Your task to perform on an android device: change timer sound Image 0: 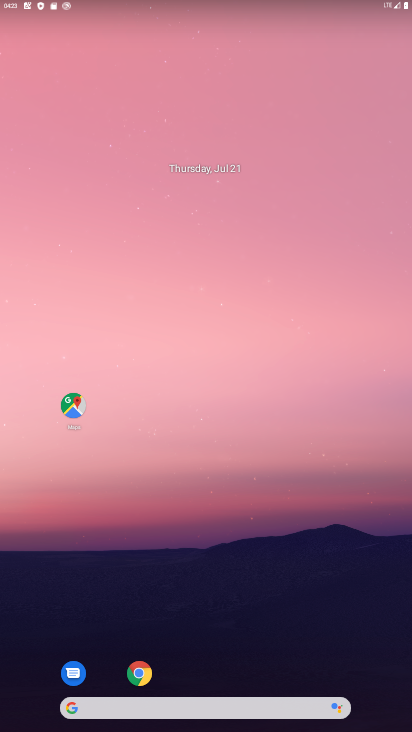
Step 0: drag from (328, 530) to (268, 10)
Your task to perform on an android device: change timer sound Image 1: 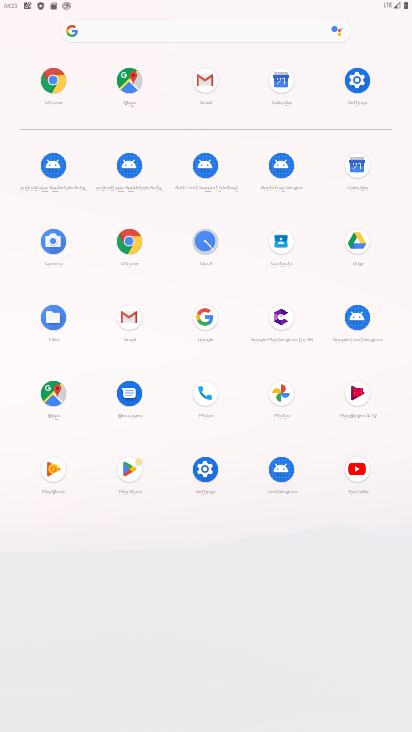
Step 1: click (198, 241)
Your task to perform on an android device: change timer sound Image 2: 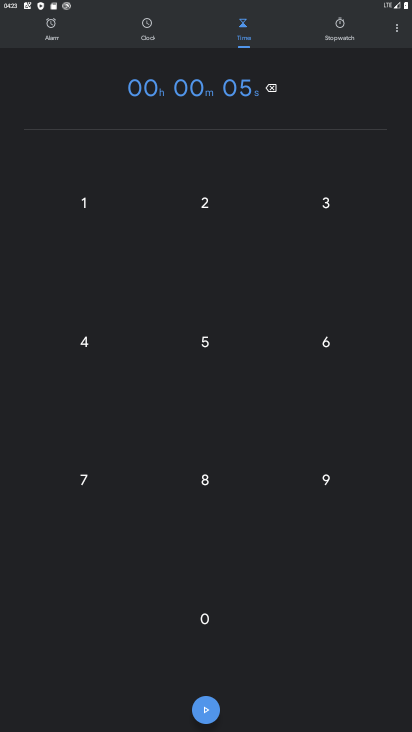
Step 2: click (391, 29)
Your task to perform on an android device: change timer sound Image 3: 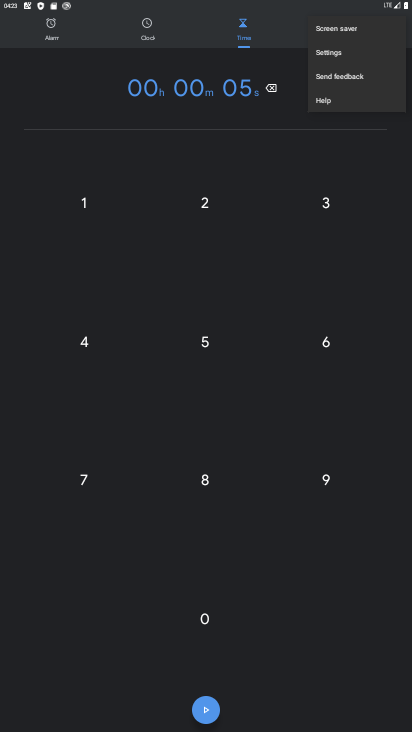
Step 3: click (358, 56)
Your task to perform on an android device: change timer sound Image 4: 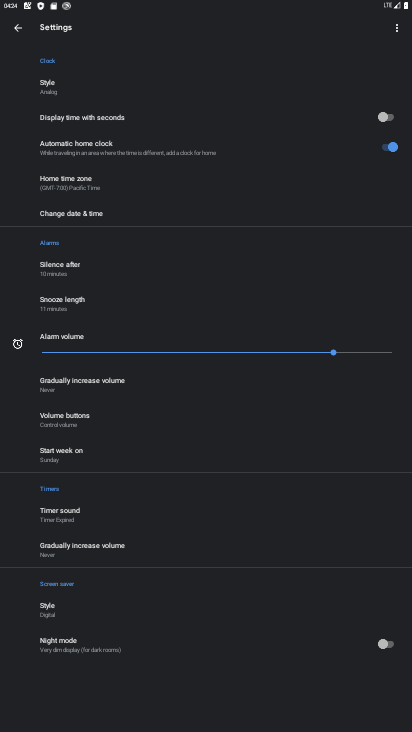
Step 4: click (55, 520)
Your task to perform on an android device: change timer sound Image 5: 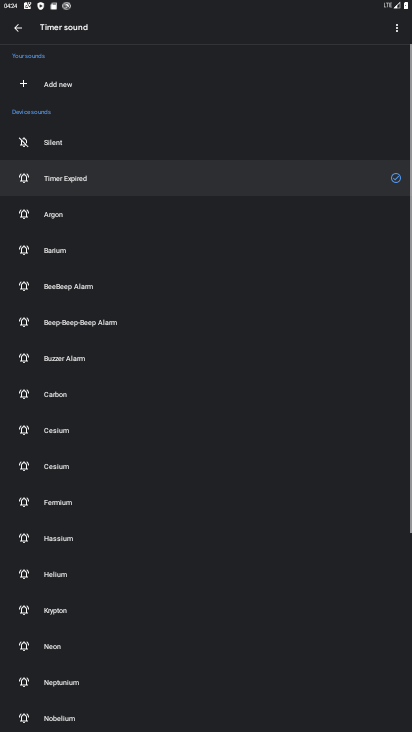
Step 5: click (98, 214)
Your task to perform on an android device: change timer sound Image 6: 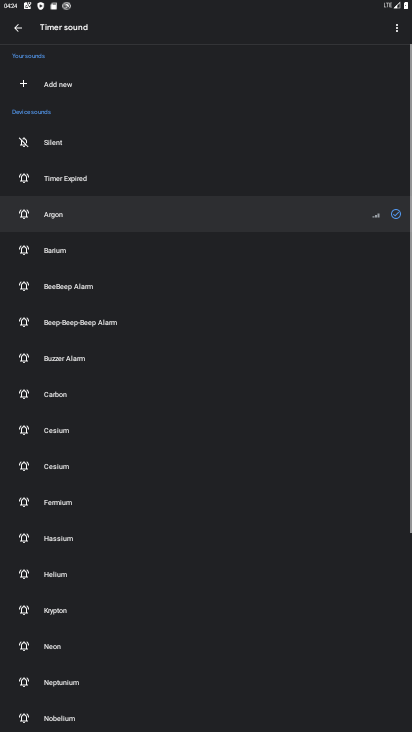
Step 6: task complete